Your task to perform on an android device: Go to ESPN.com Image 0: 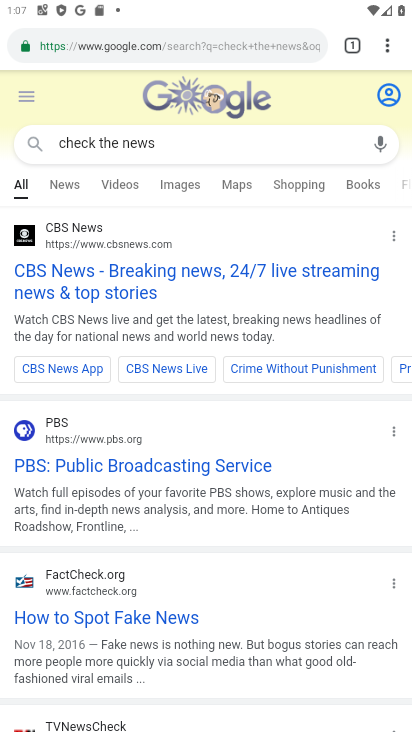
Step 0: press home button
Your task to perform on an android device: Go to ESPN.com Image 1: 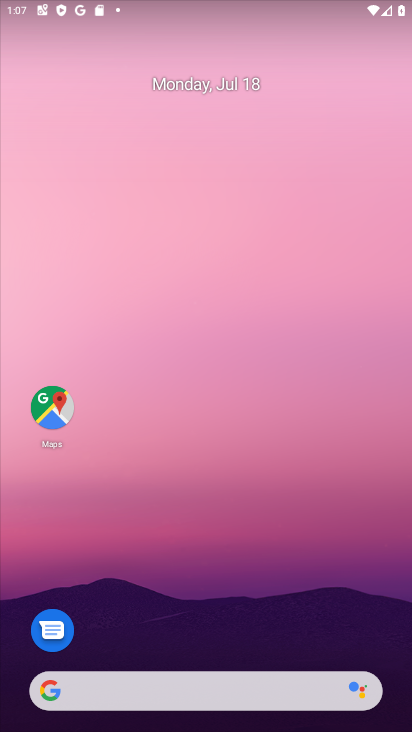
Step 1: drag from (233, 665) to (343, 0)
Your task to perform on an android device: Go to ESPN.com Image 2: 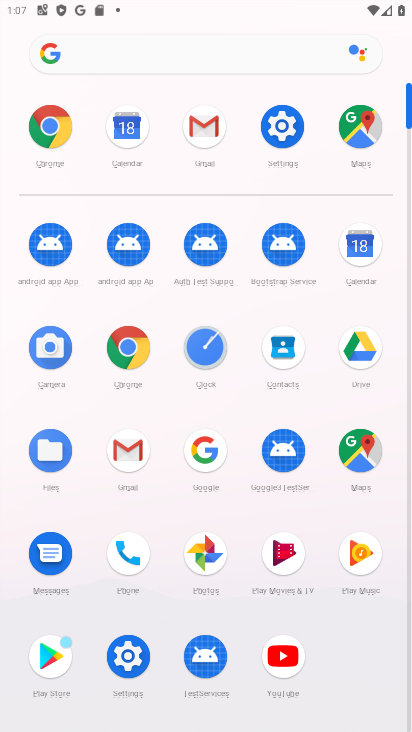
Step 2: click (128, 353)
Your task to perform on an android device: Go to ESPN.com Image 3: 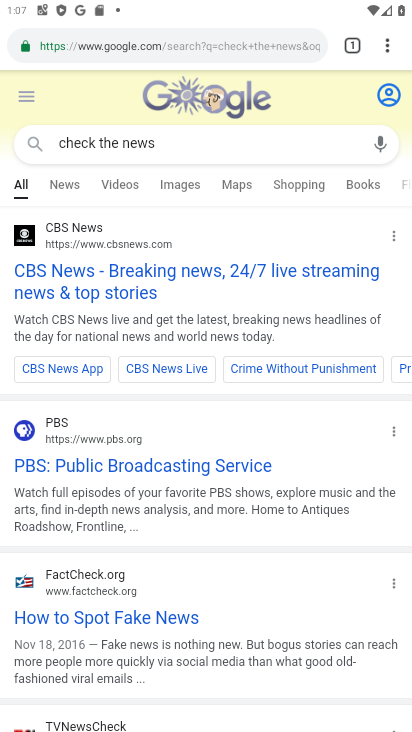
Step 3: click (202, 37)
Your task to perform on an android device: Go to ESPN.com Image 4: 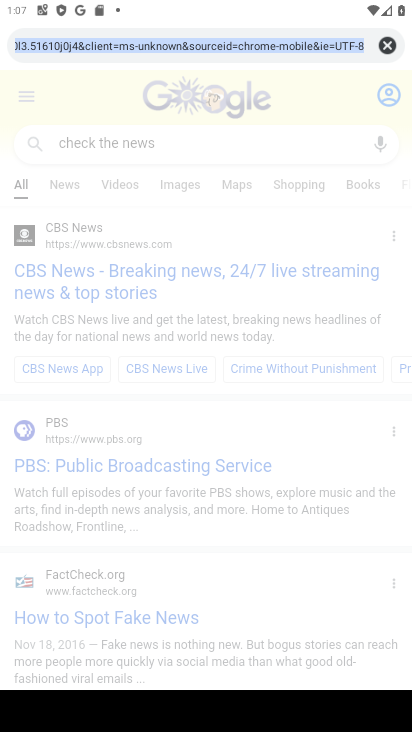
Step 4: type "espn.con"
Your task to perform on an android device: Go to ESPN.com Image 5: 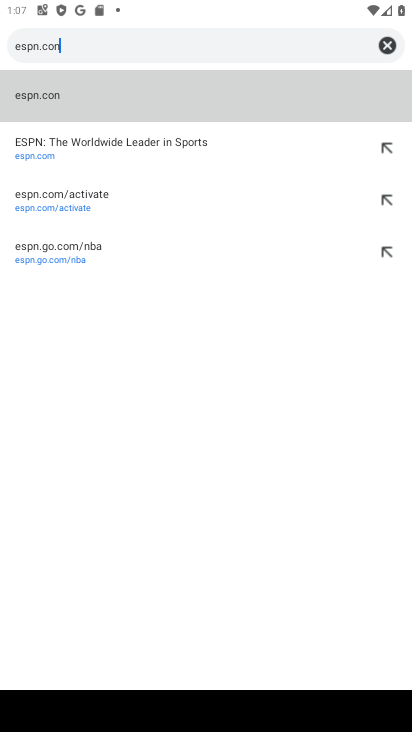
Step 5: click (98, 153)
Your task to perform on an android device: Go to ESPN.com Image 6: 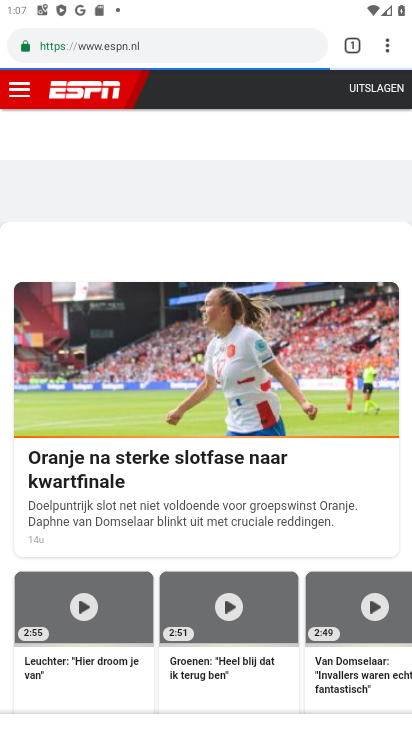
Step 6: task complete